Your task to perform on an android device: set default search engine in the chrome app Image 0: 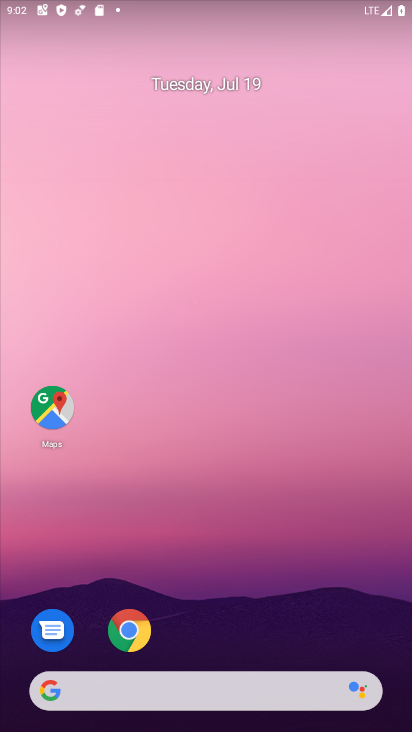
Step 0: drag from (215, 597) to (186, 76)
Your task to perform on an android device: set default search engine in the chrome app Image 1: 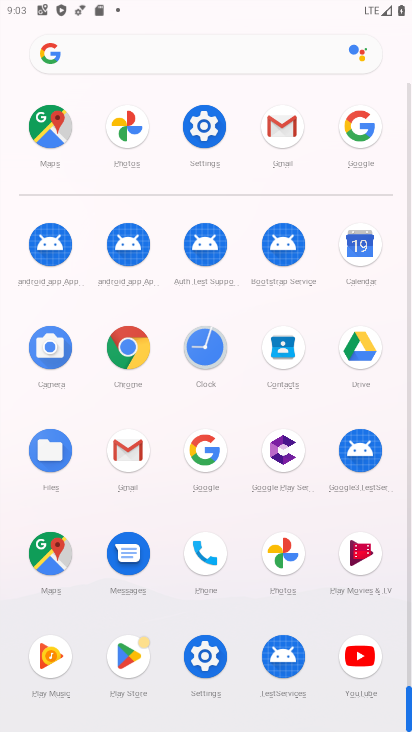
Step 1: click (124, 365)
Your task to perform on an android device: set default search engine in the chrome app Image 2: 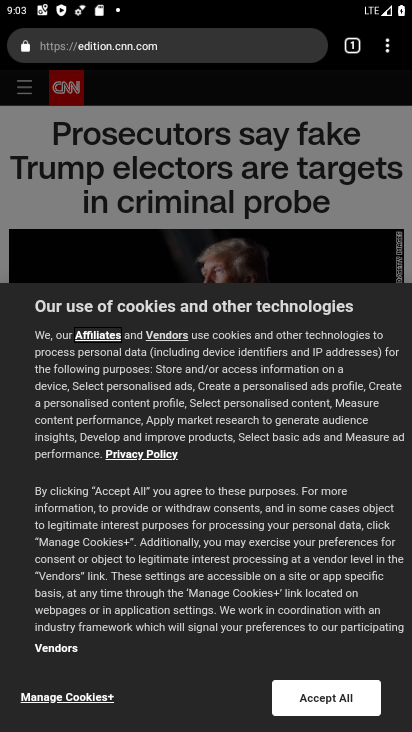
Step 2: click (388, 41)
Your task to perform on an android device: set default search engine in the chrome app Image 3: 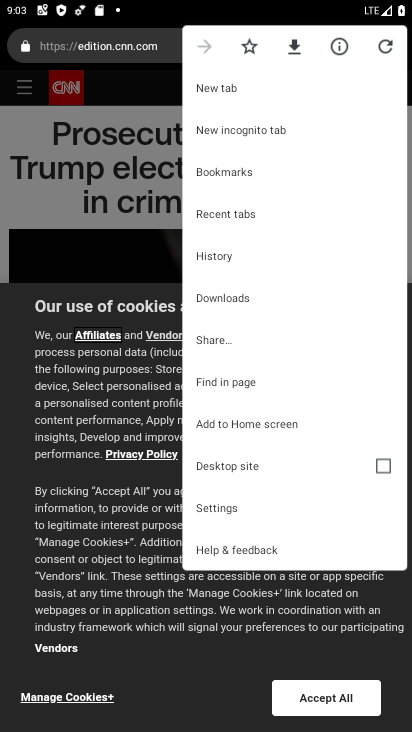
Step 3: click (235, 509)
Your task to perform on an android device: set default search engine in the chrome app Image 4: 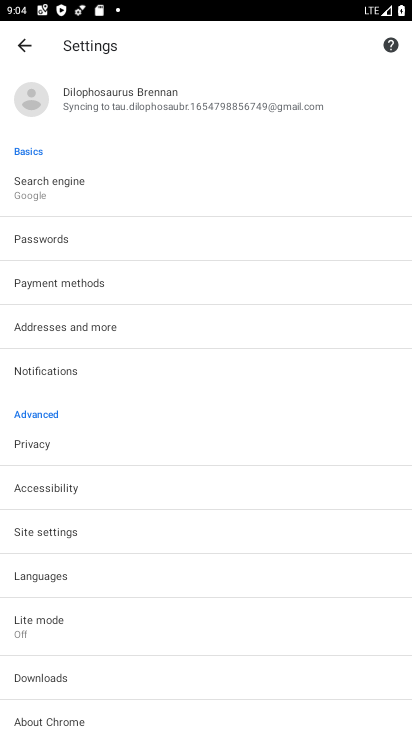
Step 4: click (96, 182)
Your task to perform on an android device: set default search engine in the chrome app Image 5: 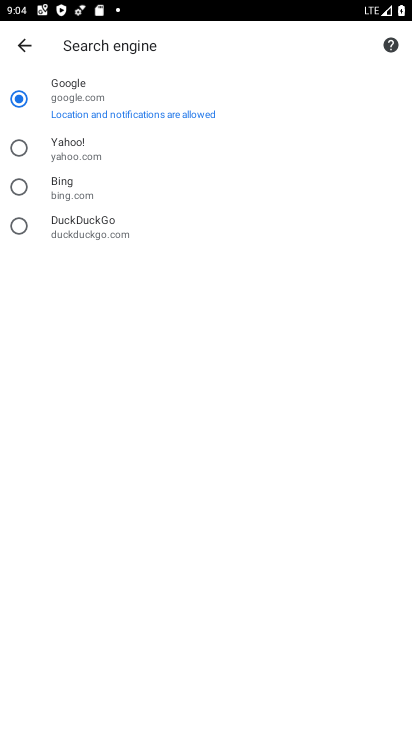
Step 5: task complete